Your task to perform on an android device: Open network settings Image 0: 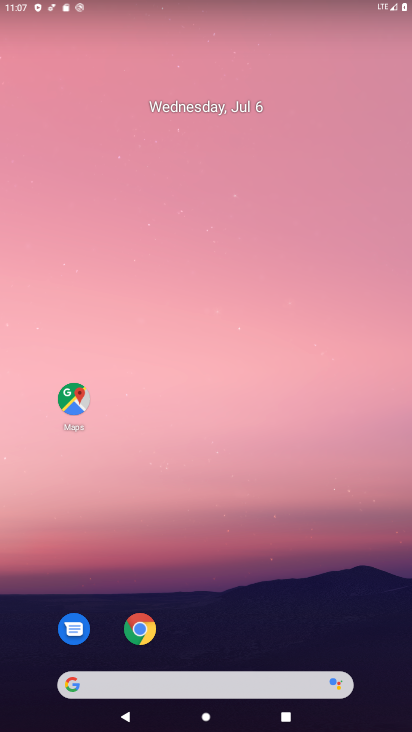
Step 0: drag from (230, 645) to (198, 182)
Your task to perform on an android device: Open network settings Image 1: 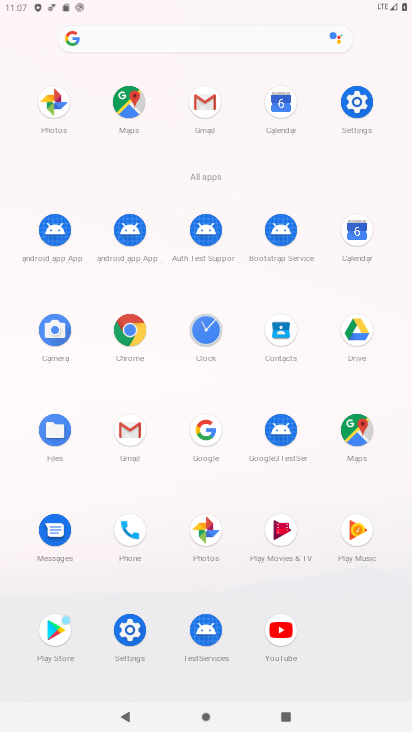
Step 1: click (349, 95)
Your task to perform on an android device: Open network settings Image 2: 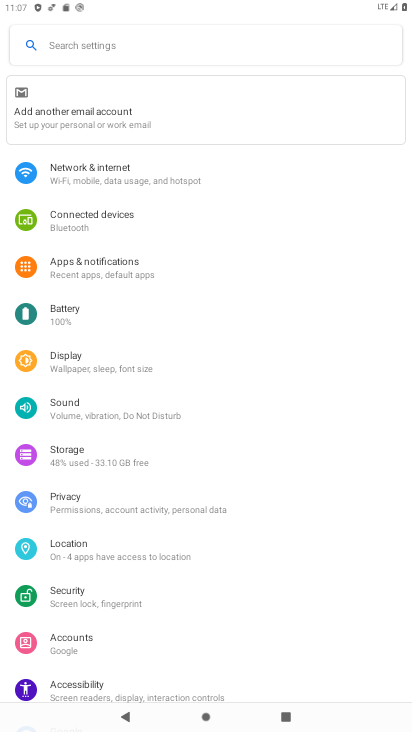
Step 2: click (150, 185)
Your task to perform on an android device: Open network settings Image 3: 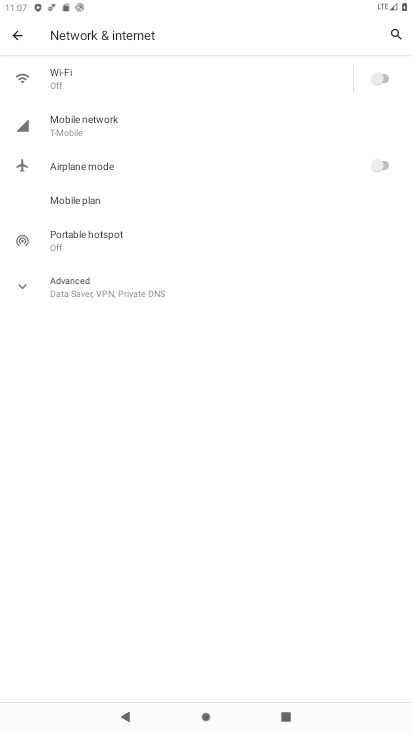
Step 3: task complete